Your task to perform on an android device: turn pop-ups on in chrome Image 0: 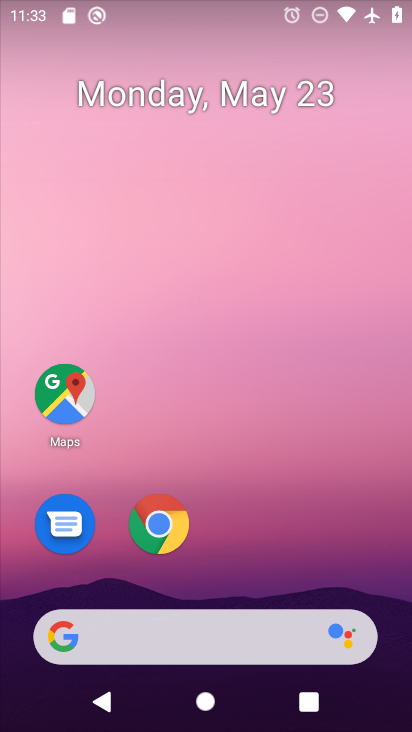
Step 0: click (168, 543)
Your task to perform on an android device: turn pop-ups on in chrome Image 1: 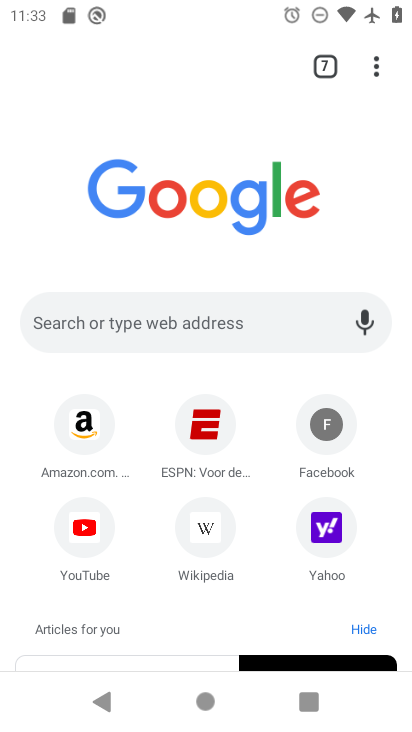
Step 1: drag from (384, 67) to (226, 551)
Your task to perform on an android device: turn pop-ups on in chrome Image 2: 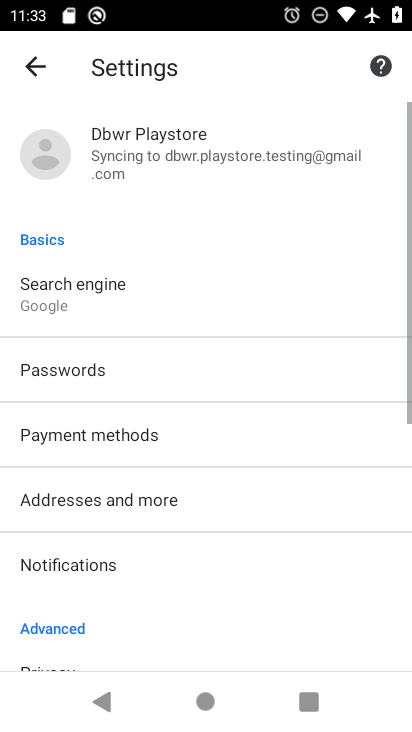
Step 2: drag from (225, 549) to (315, 191)
Your task to perform on an android device: turn pop-ups on in chrome Image 3: 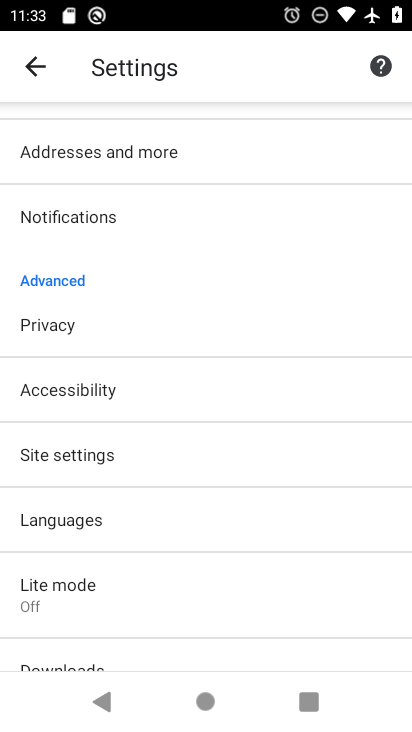
Step 3: drag from (149, 572) to (238, 330)
Your task to perform on an android device: turn pop-ups on in chrome Image 4: 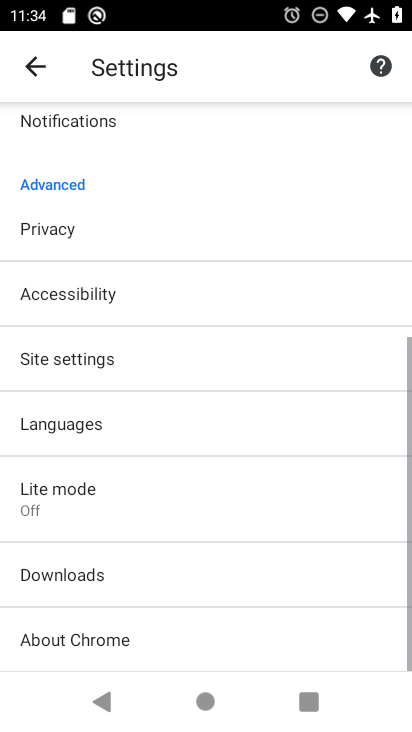
Step 4: drag from (191, 568) to (252, 367)
Your task to perform on an android device: turn pop-ups on in chrome Image 5: 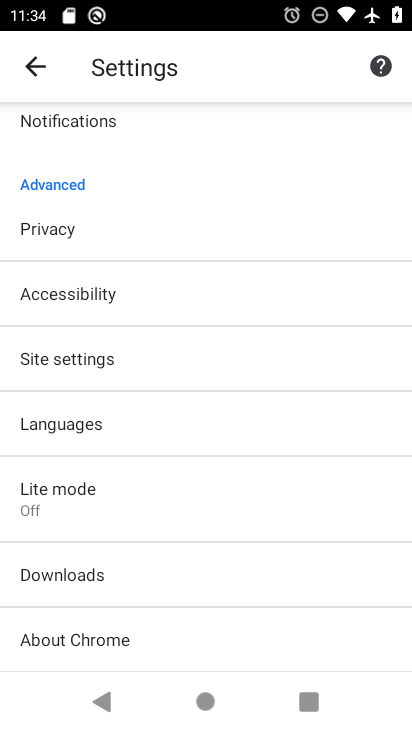
Step 5: drag from (161, 623) to (213, 390)
Your task to perform on an android device: turn pop-ups on in chrome Image 6: 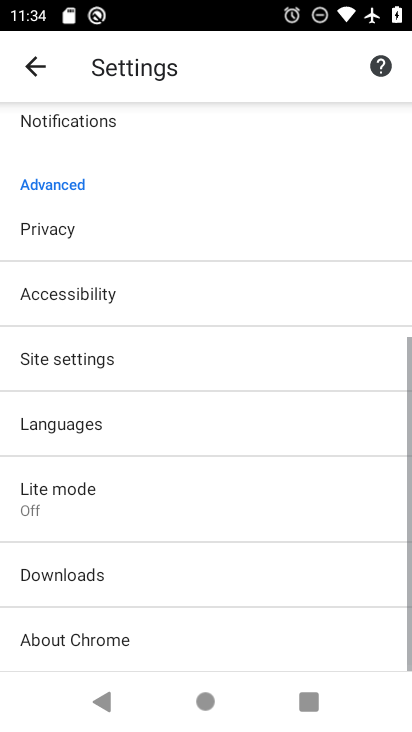
Step 6: click (194, 365)
Your task to perform on an android device: turn pop-ups on in chrome Image 7: 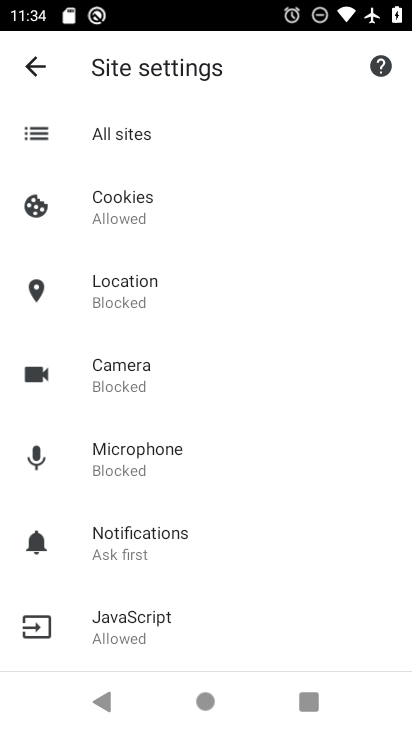
Step 7: drag from (221, 555) to (236, 404)
Your task to perform on an android device: turn pop-ups on in chrome Image 8: 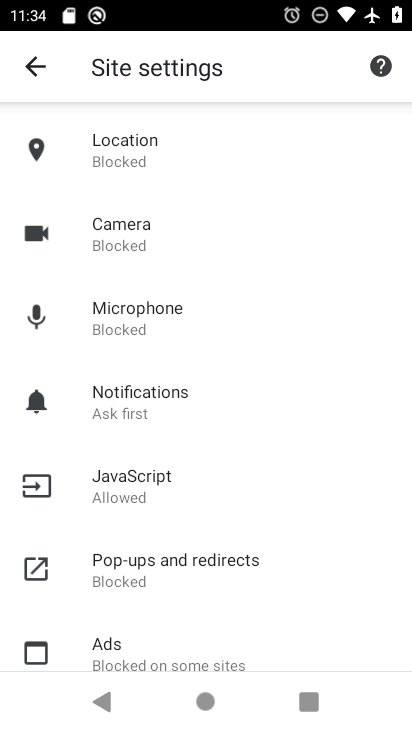
Step 8: click (231, 551)
Your task to perform on an android device: turn pop-ups on in chrome Image 9: 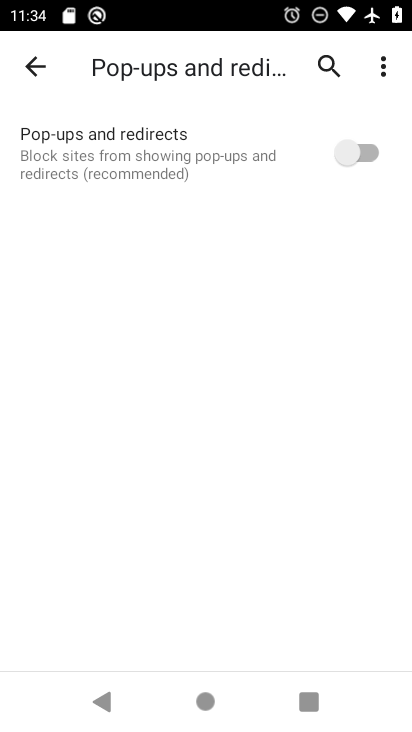
Step 9: click (360, 154)
Your task to perform on an android device: turn pop-ups on in chrome Image 10: 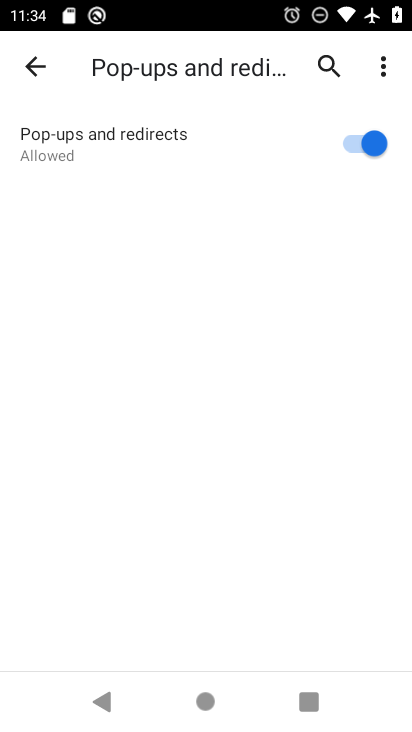
Step 10: task complete